Your task to perform on an android device: Open battery settings Image 0: 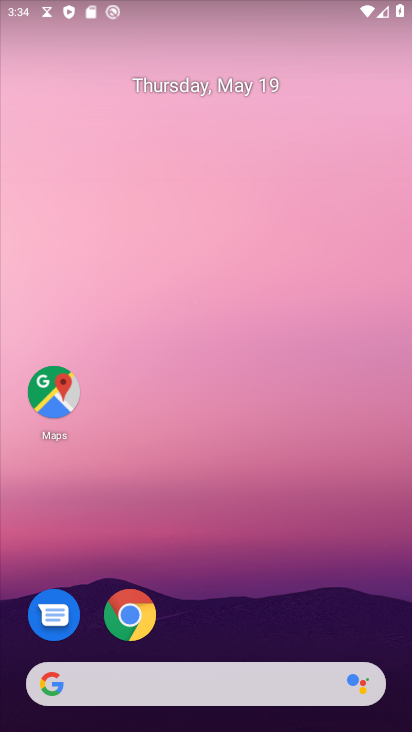
Step 0: drag from (269, 639) to (169, 135)
Your task to perform on an android device: Open battery settings Image 1: 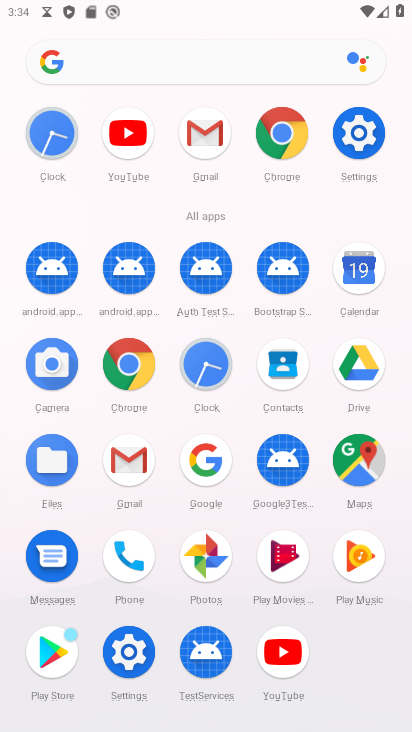
Step 1: click (130, 657)
Your task to perform on an android device: Open battery settings Image 2: 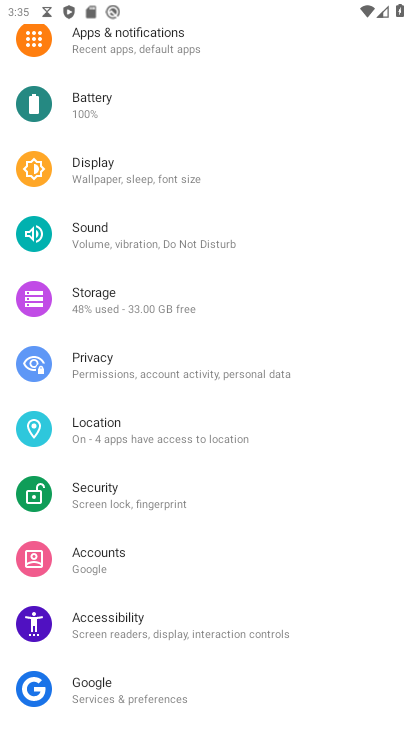
Step 2: click (91, 110)
Your task to perform on an android device: Open battery settings Image 3: 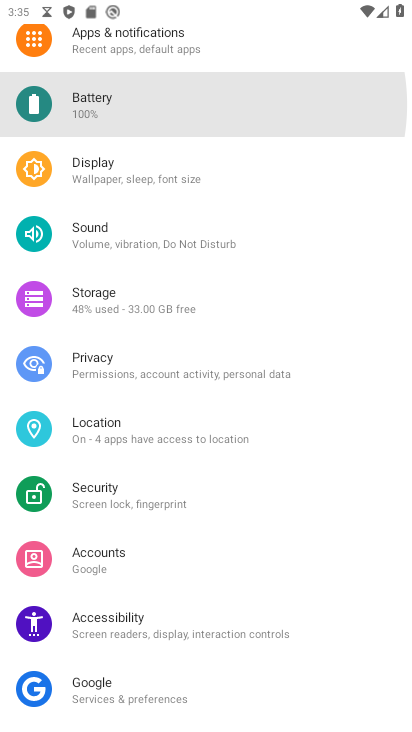
Step 3: click (91, 110)
Your task to perform on an android device: Open battery settings Image 4: 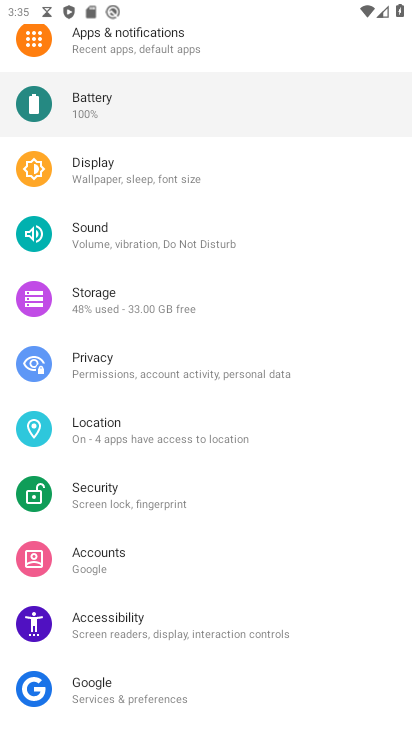
Step 4: click (90, 110)
Your task to perform on an android device: Open battery settings Image 5: 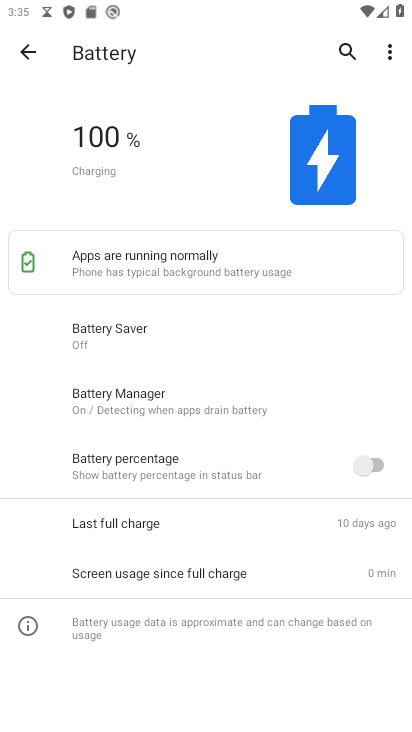
Step 5: task complete